Your task to perform on an android device: open app "DoorDash - Dasher" (install if not already installed) Image 0: 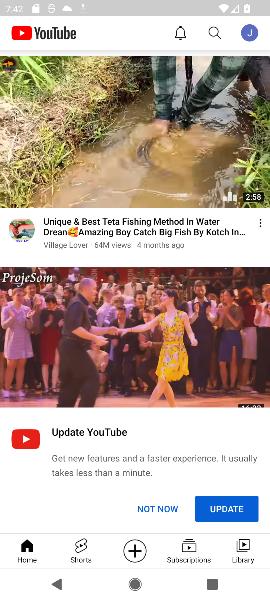
Step 0: press home button
Your task to perform on an android device: open app "DoorDash - Dasher" (install if not already installed) Image 1: 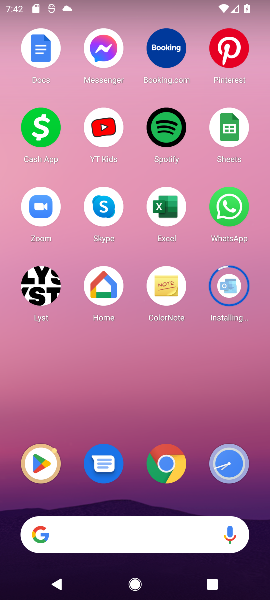
Step 1: click (45, 474)
Your task to perform on an android device: open app "DoorDash - Dasher" (install if not already installed) Image 2: 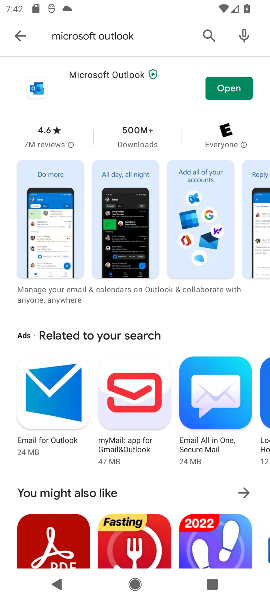
Step 2: click (198, 39)
Your task to perform on an android device: open app "DoorDash - Dasher" (install if not already installed) Image 3: 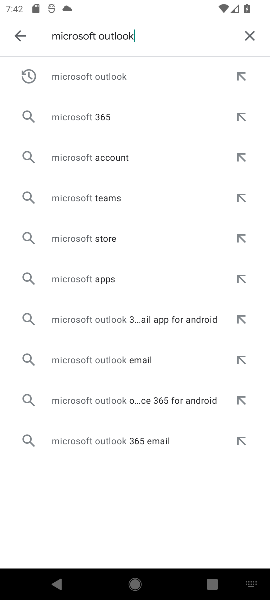
Step 3: click (244, 43)
Your task to perform on an android device: open app "DoorDash - Dasher" (install if not already installed) Image 4: 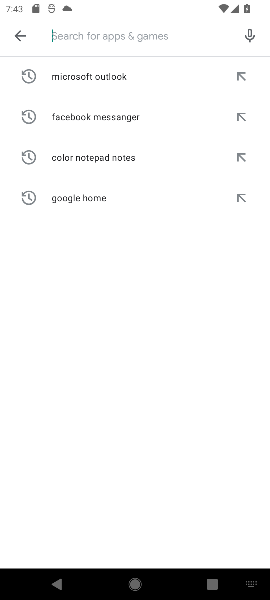
Step 4: type "doordash"
Your task to perform on an android device: open app "DoorDash - Dasher" (install if not already installed) Image 5: 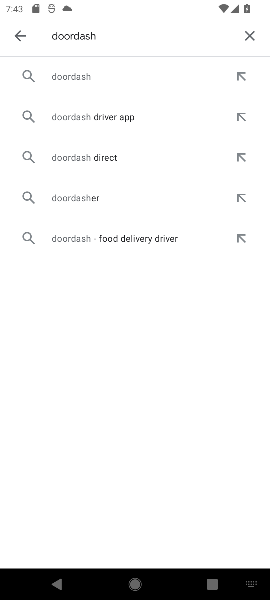
Step 5: click (87, 81)
Your task to perform on an android device: open app "DoorDash - Dasher" (install if not already installed) Image 6: 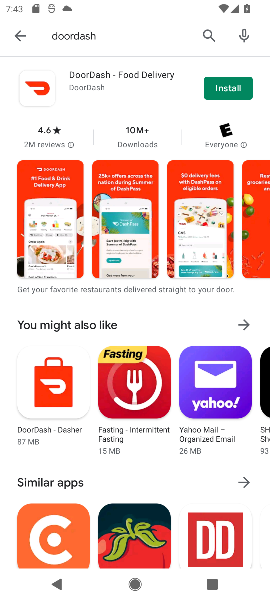
Step 6: click (238, 83)
Your task to perform on an android device: open app "DoorDash - Dasher" (install if not already installed) Image 7: 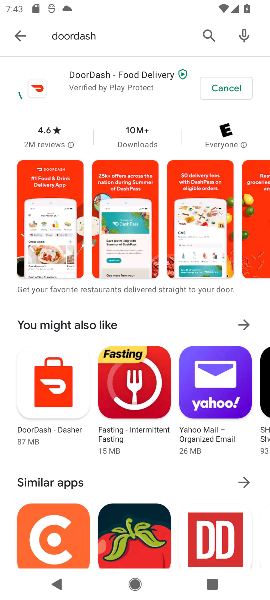
Step 7: task complete